Your task to perform on an android device: Open the web browser Image 0: 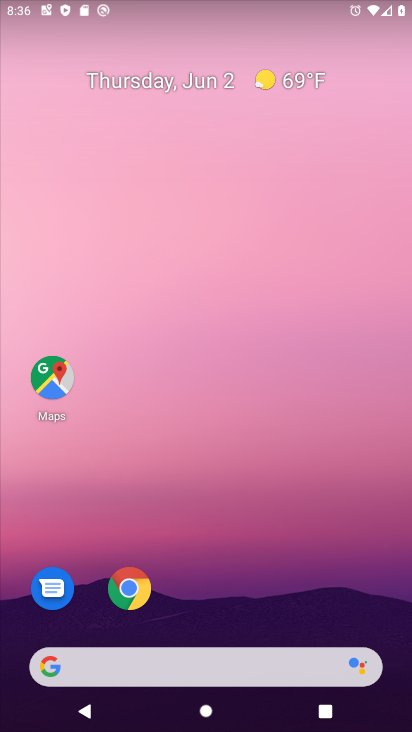
Step 0: click (131, 586)
Your task to perform on an android device: Open the web browser Image 1: 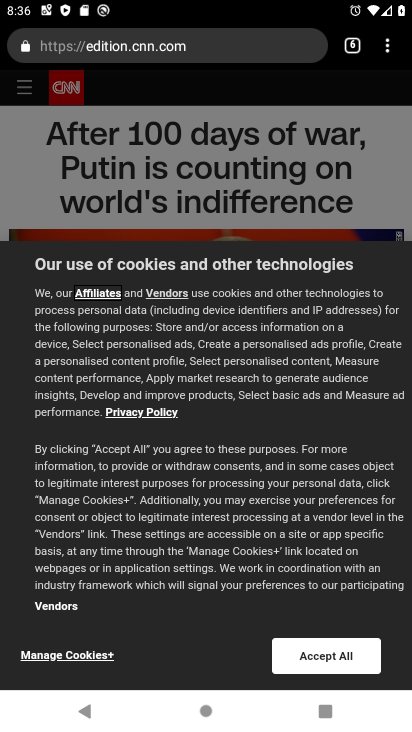
Step 1: task complete